Your task to perform on an android device: turn smart compose on in the gmail app Image 0: 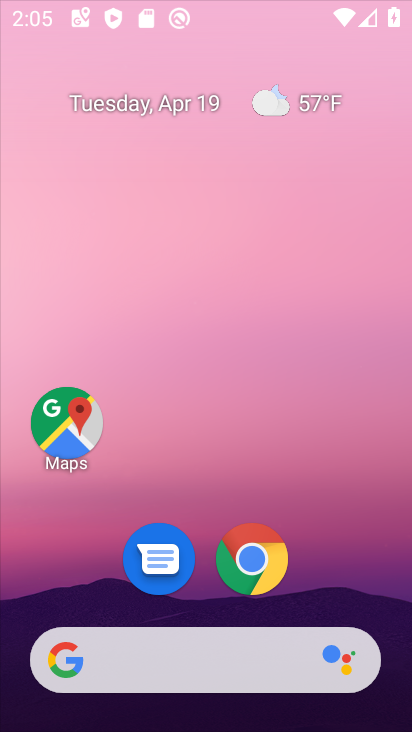
Step 0: click (185, 151)
Your task to perform on an android device: turn smart compose on in the gmail app Image 1: 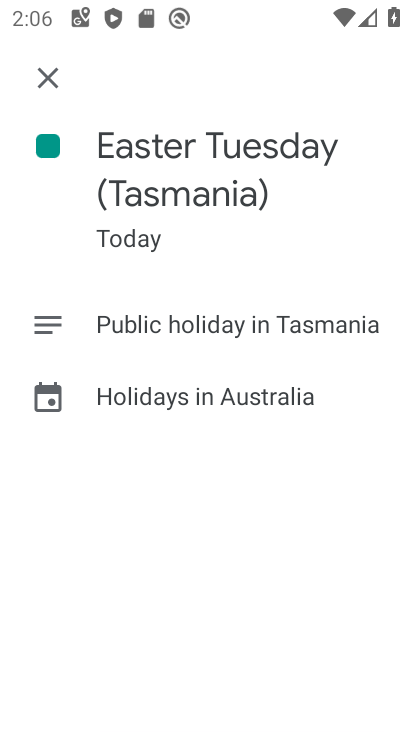
Step 1: press home button
Your task to perform on an android device: turn smart compose on in the gmail app Image 2: 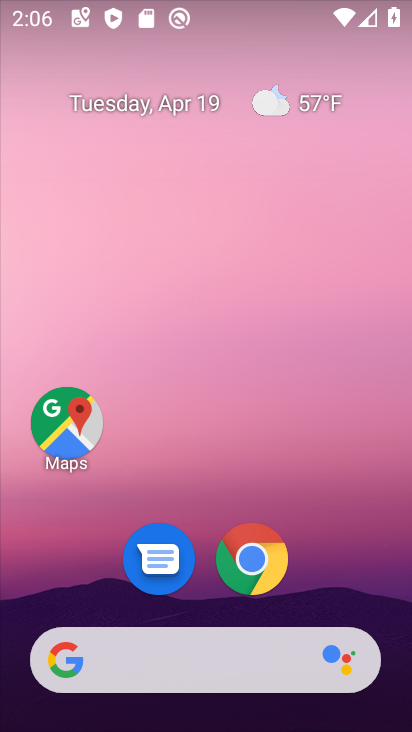
Step 2: drag from (203, 568) to (203, 111)
Your task to perform on an android device: turn smart compose on in the gmail app Image 3: 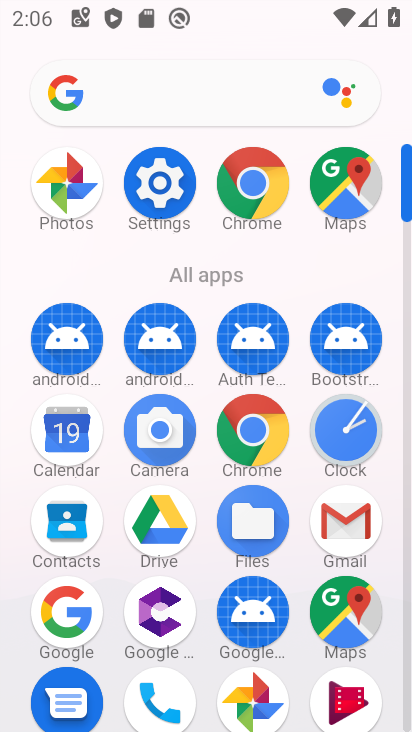
Step 3: click (347, 515)
Your task to perform on an android device: turn smart compose on in the gmail app Image 4: 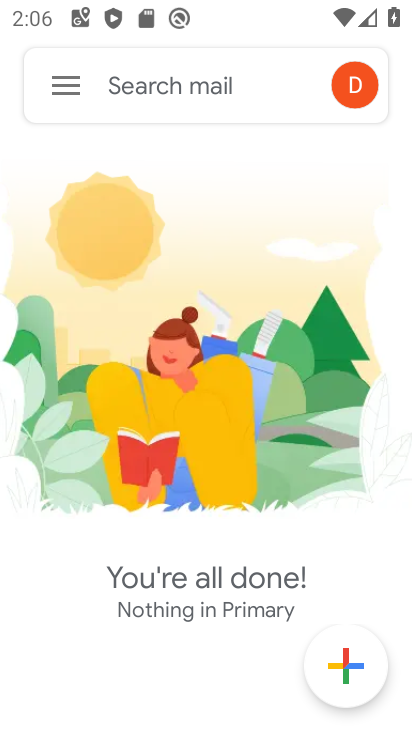
Step 4: click (61, 77)
Your task to perform on an android device: turn smart compose on in the gmail app Image 5: 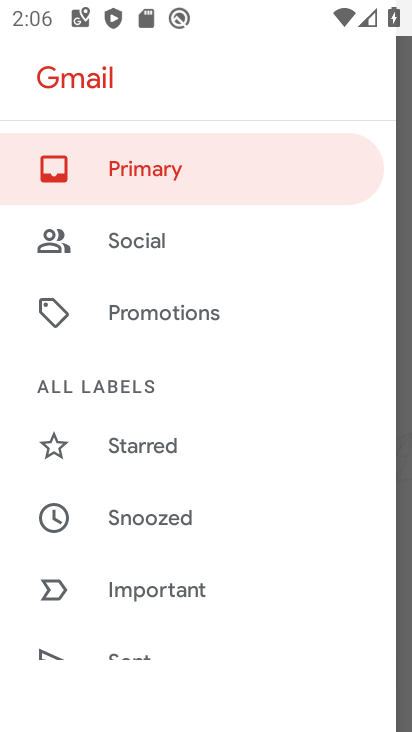
Step 5: drag from (163, 608) to (168, 158)
Your task to perform on an android device: turn smart compose on in the gmail app Image 6: 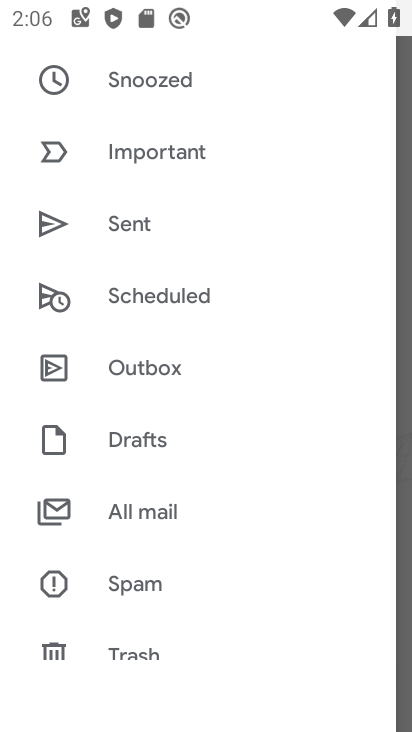
Step 6: drag from (159, 619) to (178, 186)
Your task to perform on an android device: turn smart compose on in the gmail app Image 7: 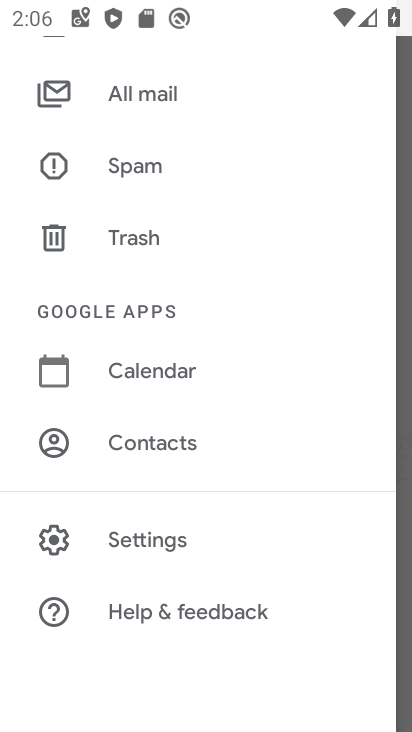
Step 7: click (181, 537)
Your task to perform on an android device: turn smart compose on in the gmail app Image 8: 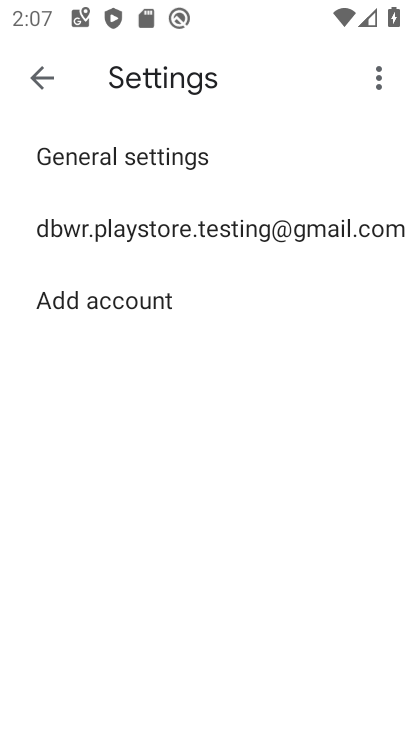
Step 8: click (238, 232)
Your task to perform on an android device: turn smart compose on in the gmail app Image 9: 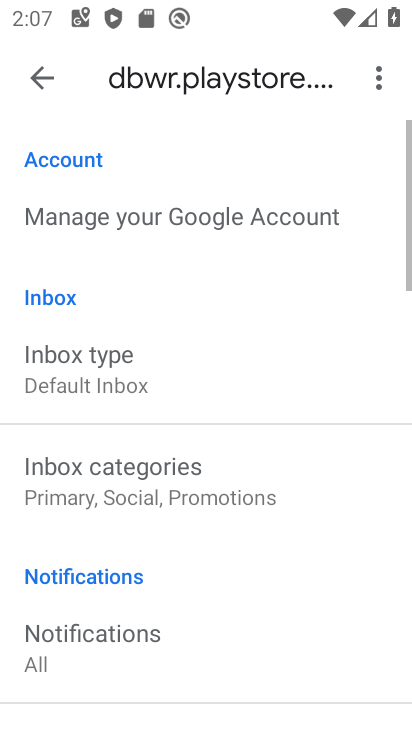
Step 9: task complete